Your task to perform on an android device: open a bookmark in the chrome app Image 0: 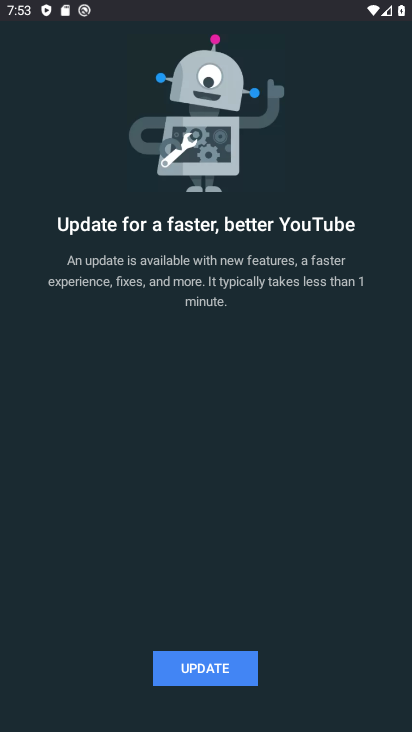
Step 0: press home button
Your task to perform on an android device: open a bookmark in the chrome app Image 1: 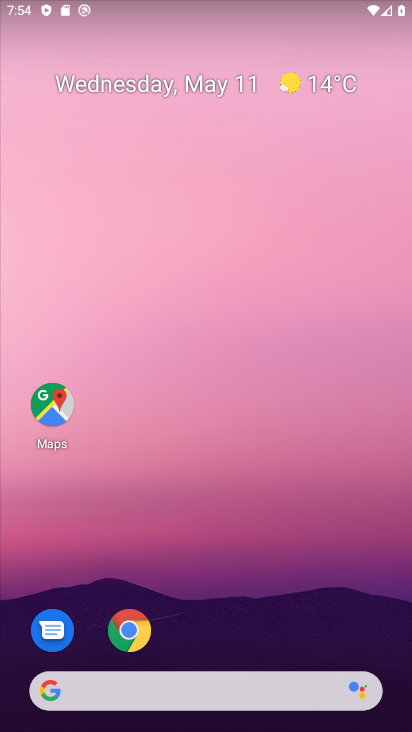
Step 1: click (130, 630)
Your task to perform on an android device: open a bookmark in the chrome app Image 2: 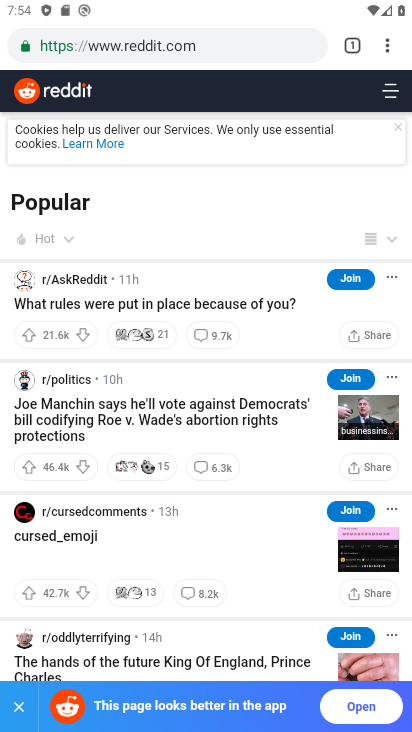
Step 2: click (386, 46)
Your task to perform on an android device: open a bookmark in the chrome app Image 3: 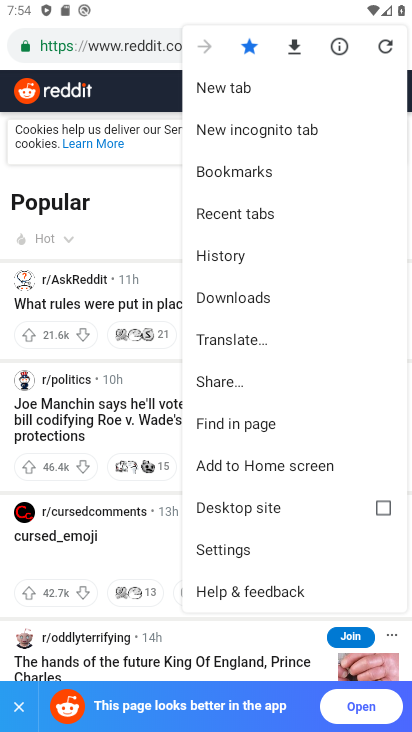
Step 3: click (231, 162)
Your task to perform on an android device: open a bookmark in the chrome app Image 4: 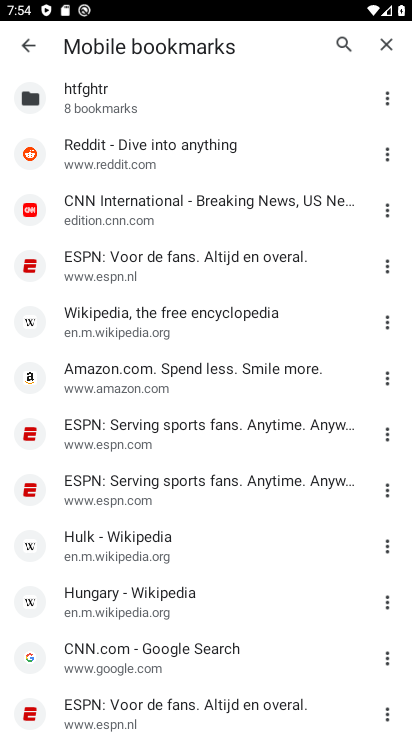
Step 4: task complete